Your task to perform on an android device: Open Google Chrome and click the shortcut for Amazon.com Image 0: 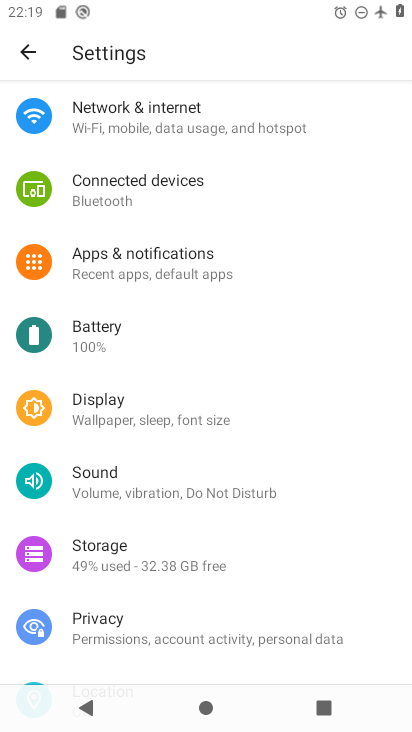
Step 0: press home button
Your task to perform on an android device: Open Google Chrome and click the shortcut for Amazon.com Image 1: 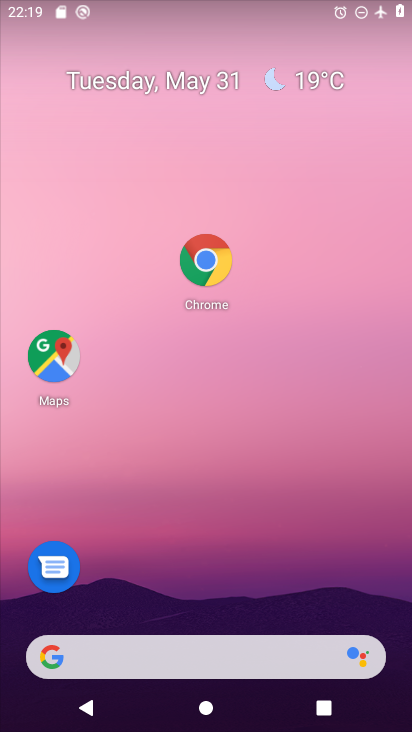
Step 1: click (219, 266)
Your task to perform on an android device: Open Google Chrome and click the shortcut for Amazon.com Image 2: 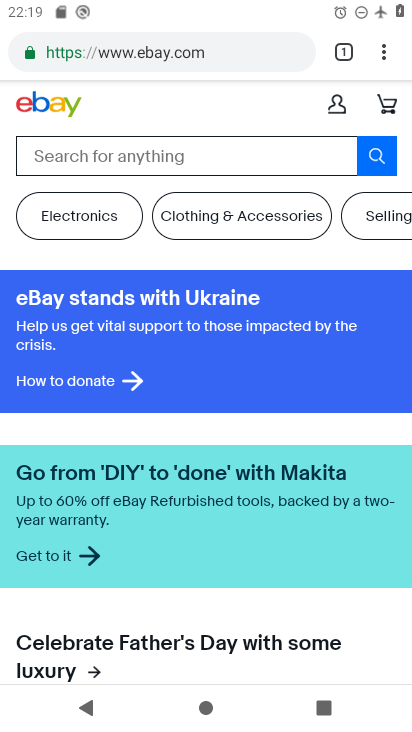
Step 2: click (225, 85)
Your task to perform on an android device: Open Google Chrome and click the shortcut for Amazon.com Image 3: 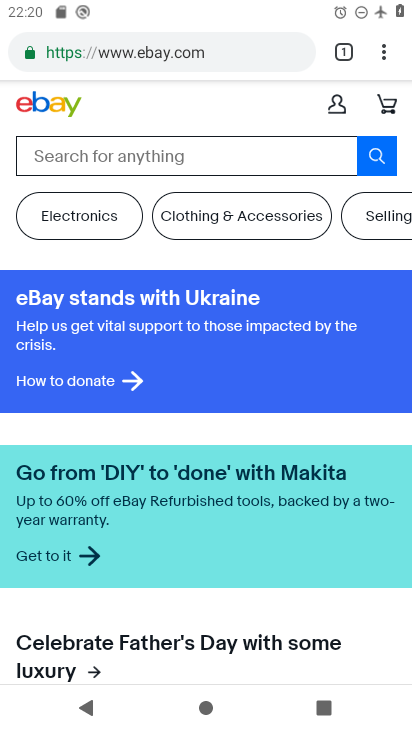
Step 3: click (342, 55)
Your task to perform on an android device: Open Google Chrome and click the shortcut for Amazon.com Image 4: 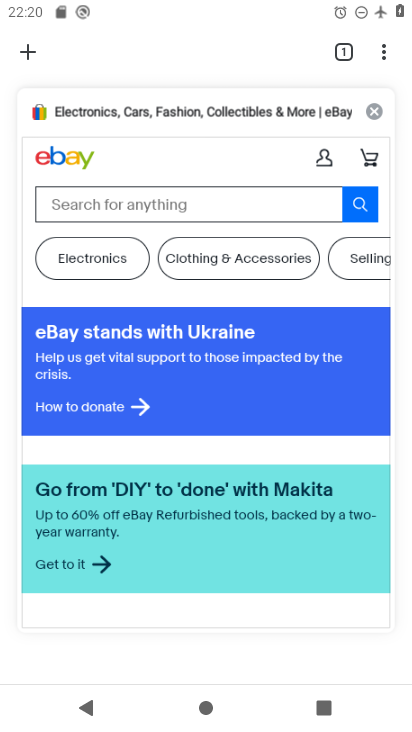
Step 4: click (376, 109)
Your task to perform on an android device: Open Google Chrome and click the shortcut for Amazon.com Image 5: 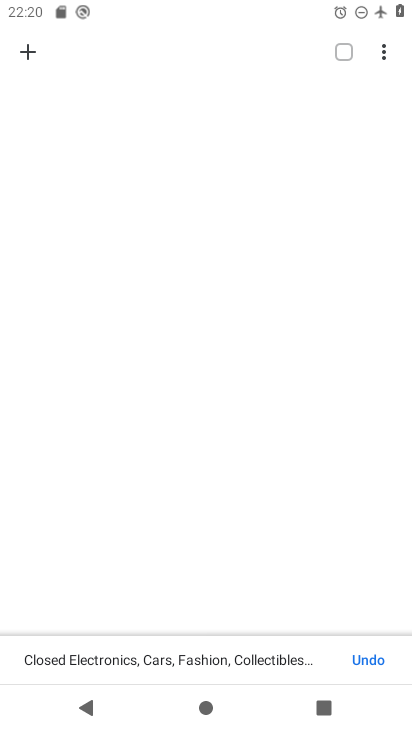
Step 5: click (22, 59)
Your task to perform on an android device: Open Google Chrome and click the shortcut for Amazon.com Image 6: 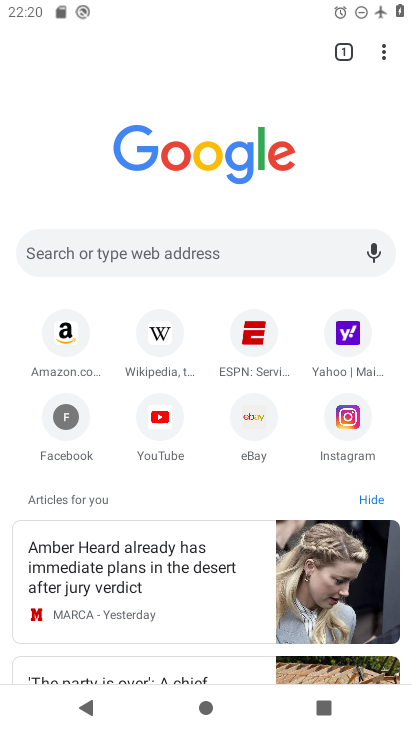
Step 6: click (56, 332)
Your task to perform on an android device: Open Google Chrome and click the shortcut for Amazon.com Image 7: 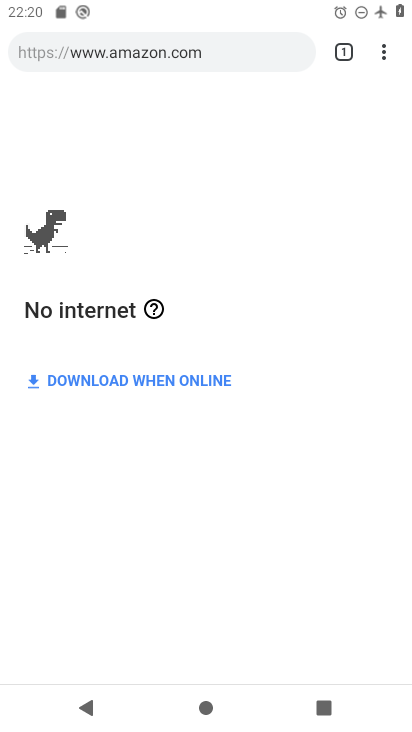
Step 7: task complete